Your task to perform on an android device: What's on my calendar tomorrow? Image 0: 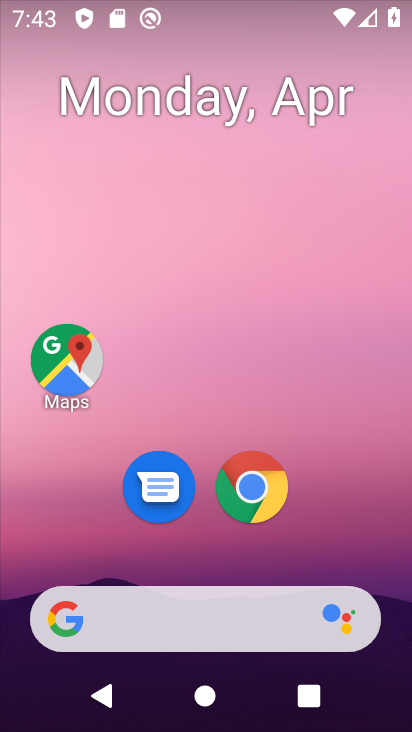
Step 0: drag from (324, 472) to (324, 59)
Your task to perform on an android device: What's on my calendar tomorrow? Image 1: 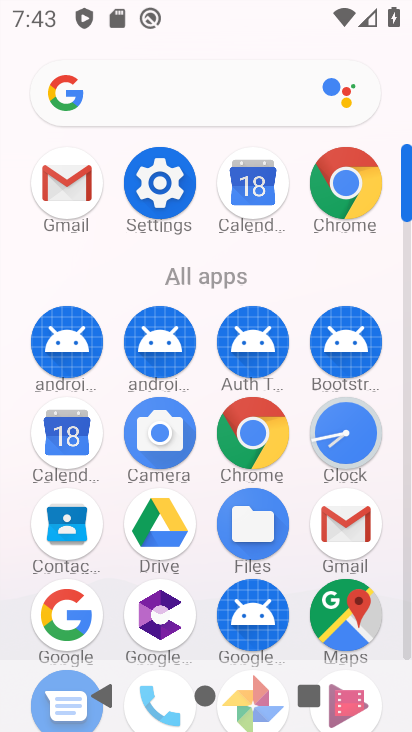
Step 1: click (254, 196)
Your task to perform on an android device: What's on my calendar tomorrow? Image 2: 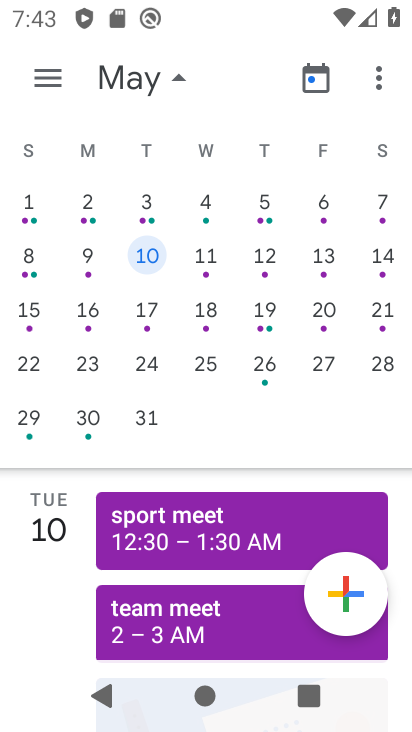
Step 2: click (48, 78)
Your task to perform on an android device: What's on my calendar tomorrow? Image 3: 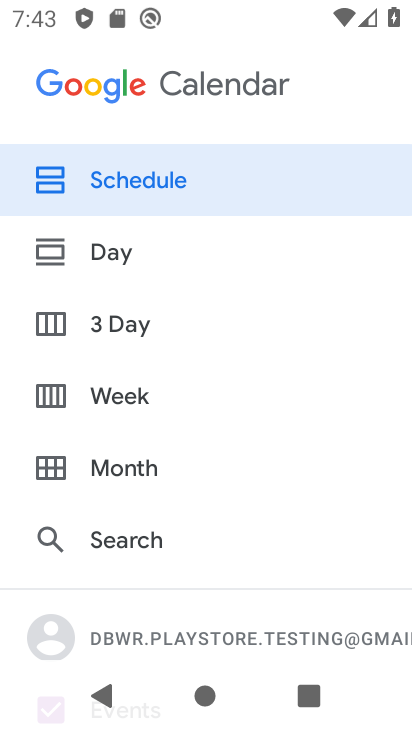
Step 3: drag from (246, 550) to (269, 189)
Your task to perform on an android device: What's on my calendar tomorrow? Image 4: 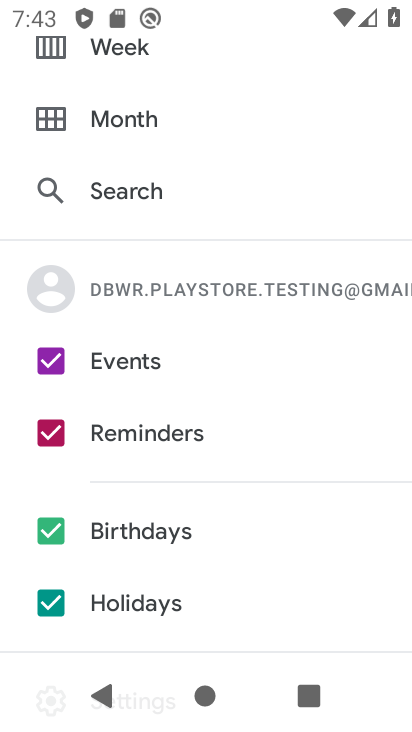
Step 4: drag from (272, 556) to (280, 277)
Your task to perform on an android device: What's on my calendar tomorrow? Image 5: 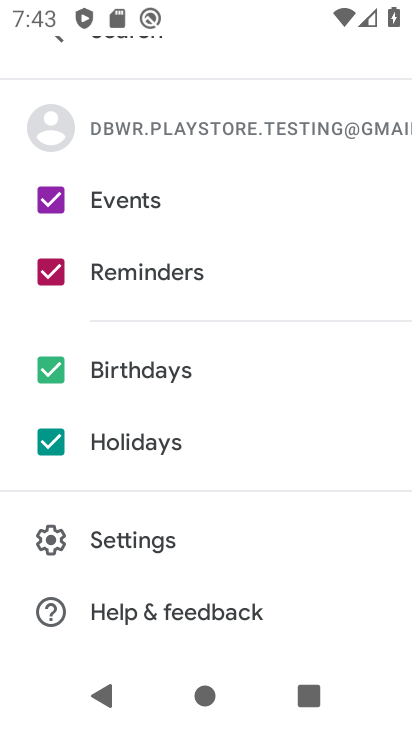
Step 5: drag from (298, 203) to (289, 513)
Your task to perform on an android device: What's on my calendar tomorrow? Image 6: 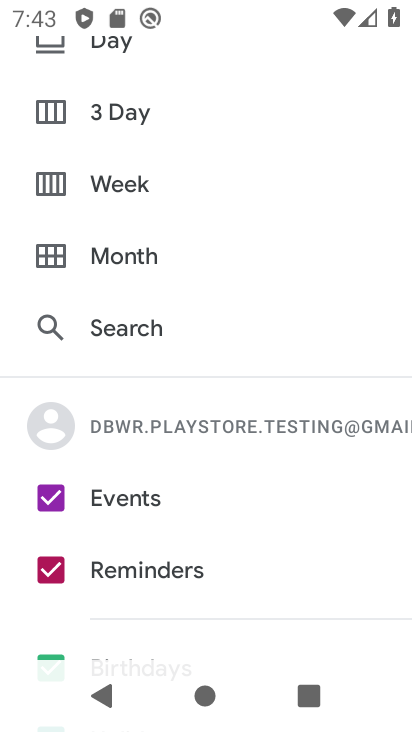
Step 6: drag from (275, 181) to (278, 460)
Your task to perform on an android device: What's on my calendar tomorrow? Image 7: 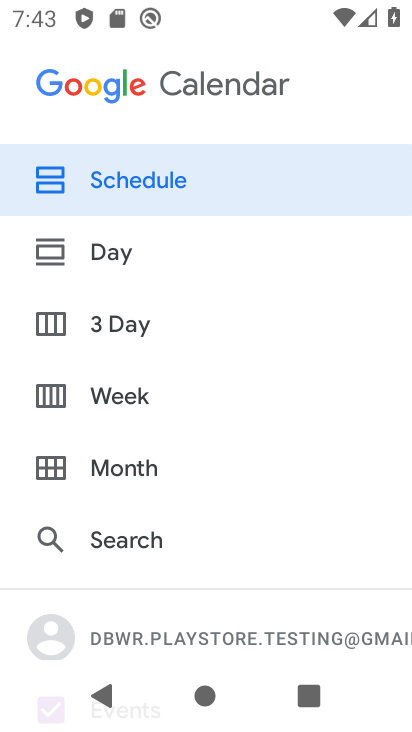
Step 7: drag from (298, 253) to (280, 479)
Your task to perform on an android device: What's on my calendar tomorrow? Image 8: 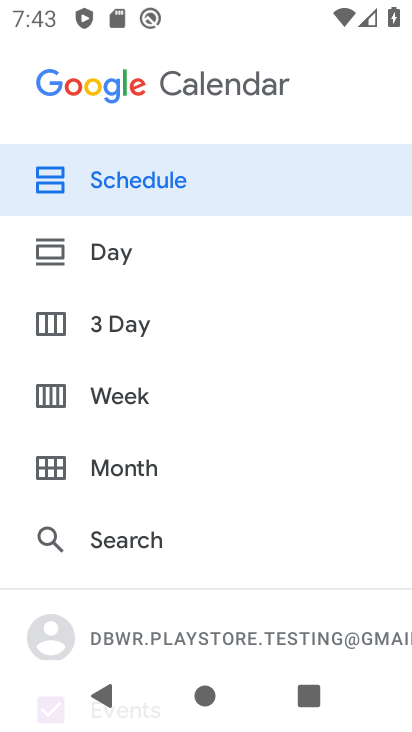
Step 8: click (152, 469)
Your task to perform on an android device: What's on my calendar tomorrow? Image 9: 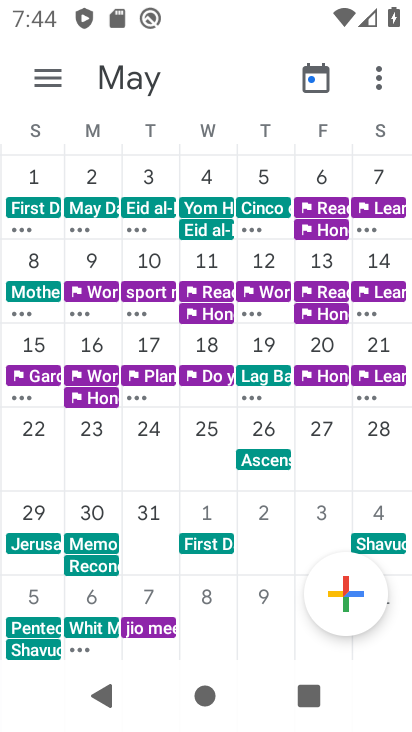
Step 9: drag from (17, 325) to (406, 343)
Your task to perform on an android device: What's on my calendar tomorrow? Image 10: 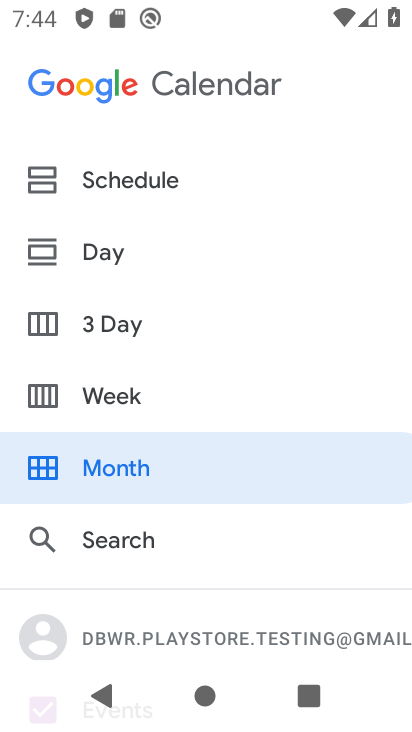
Step 10: drag from (273, 397) to (20, 381)
Your task to perform on an android device: What's on my calendar tomorrow? Image 11: 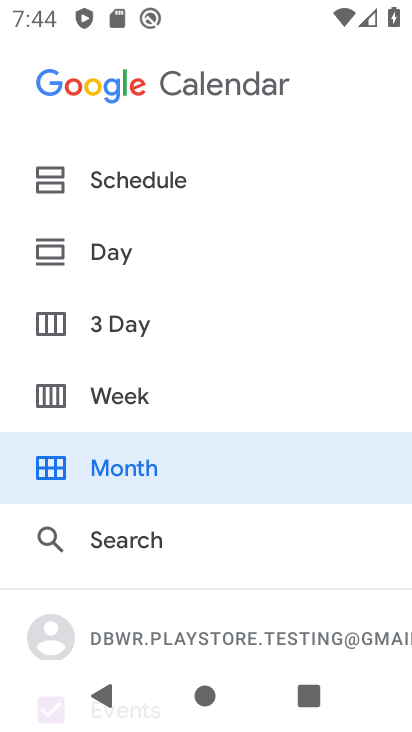
Step 11: click (147, 180)
Your task to perform on an android device: What's on my calendar tomorrow? Image 12: 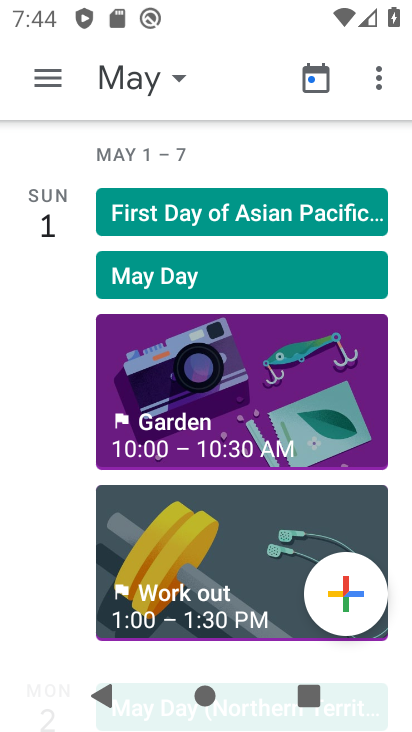
Step 12: click (182, 73)
Your task to perform on an android device: What's on my calendar tomorrow? Image 13: 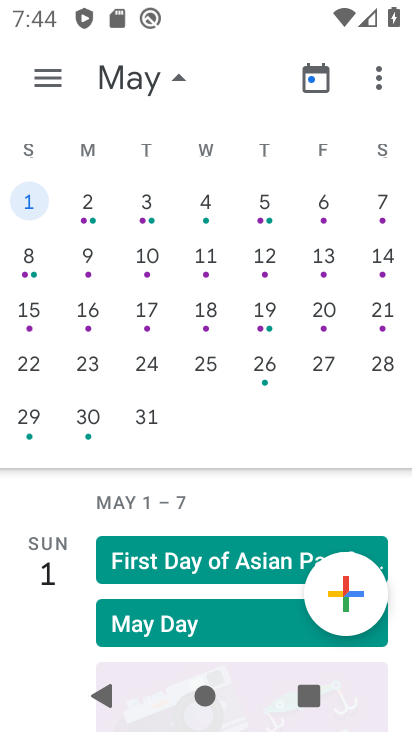
Step 13: drag from (42, 286) to (406, 296)
Your task to perform on an android device: What's on my calendar tomorrow? Image 14: 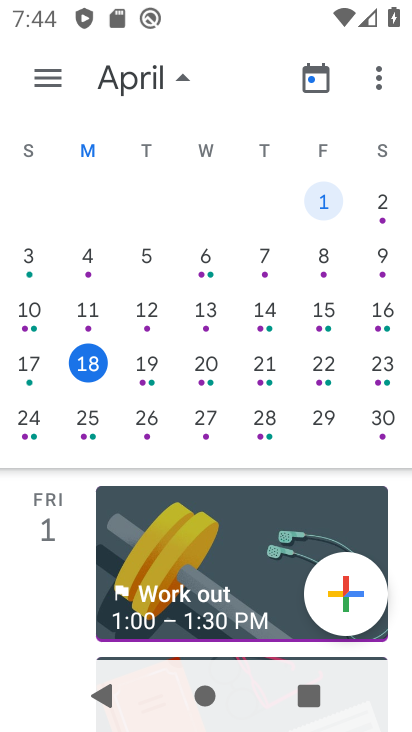
Step 14: click (203, 363)
Your task to perform on an android device: What's on my calendar tomorrow? Image 15: 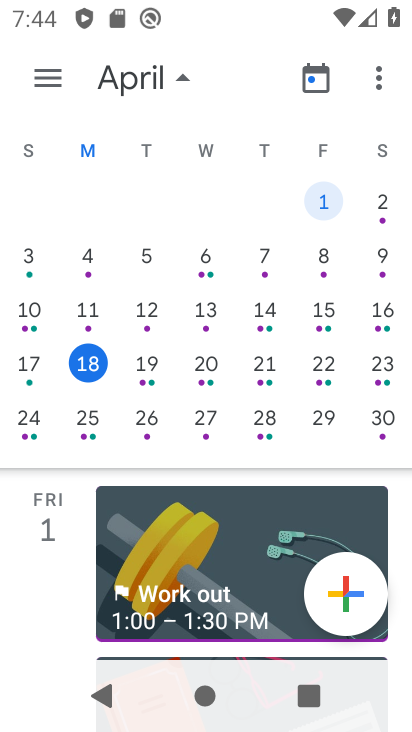
Step 15: click (208, 362)
Your task to perform on an android device: What's on my calendar tomorrow? Image 16: 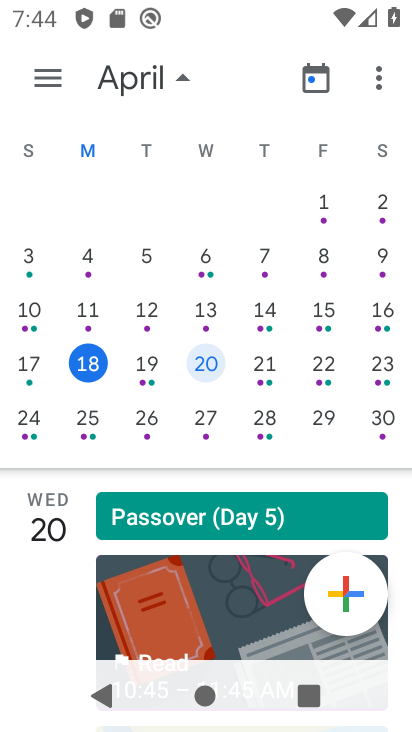
Step 16: task complete